Your task to perform on an android device: see tabs open on other devices in the chrome app Image 0: 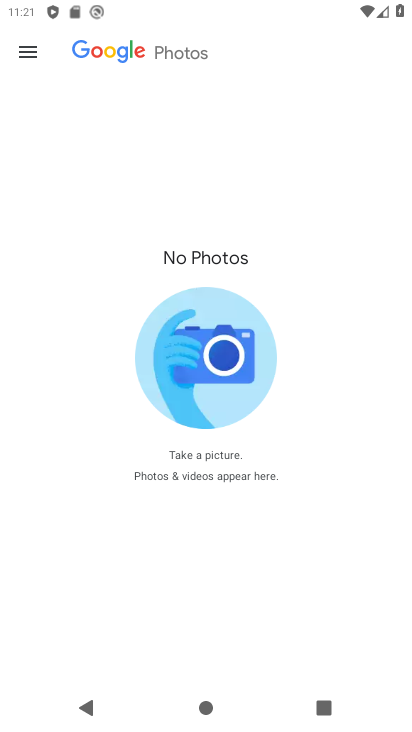
Step 0: press home button
Your task to perform on an android device: see tabs open on other devices in the chrome app Image 1: 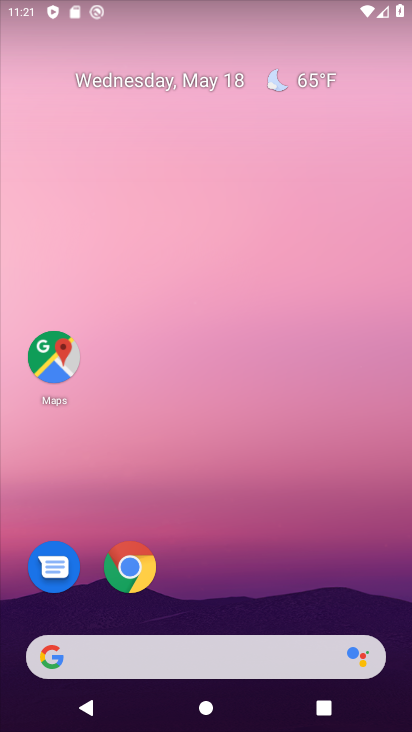
Step 1: click (121, 583)
Your task to perform on an android device: see tabs open on other devices in the chrome app Image 2: 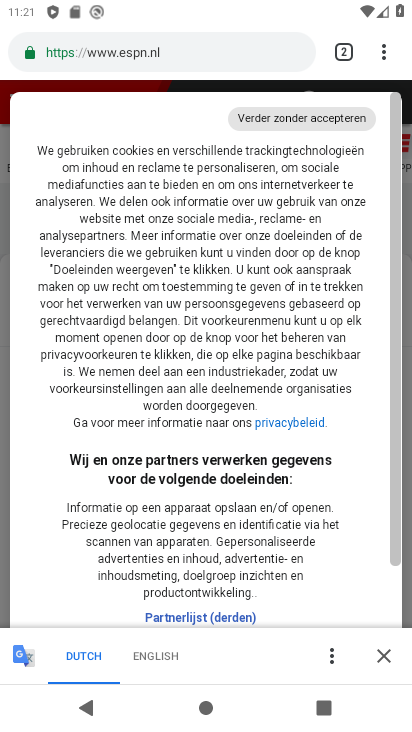
Step 2: click (386, 49)
Your task to perform on an android device: see tabs open on other devices in the chrome app Image 3: 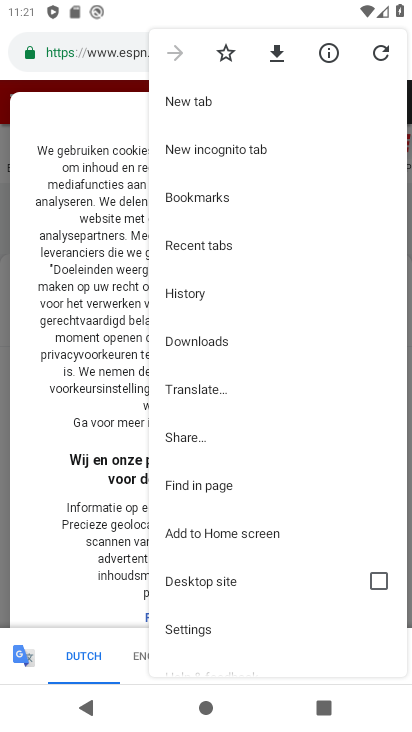
Step 3: click (192, 240)
Your task to perform on an android device: see tabs open on other devices in the chrome app Image 4: 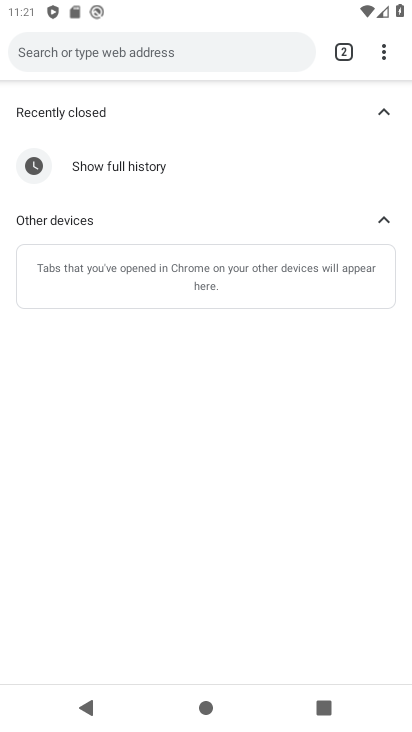
Step 4: task complete